Your task to perform on an android device: see sites visited before in the chrome app Image 0: 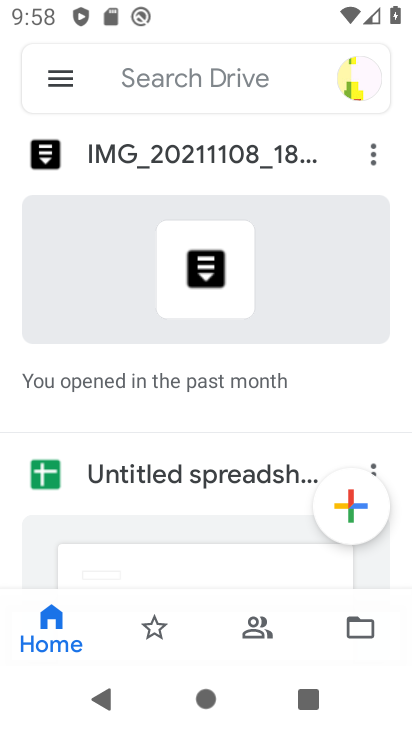
Step 0: press home button
Your task to perform on an android device: see sites visited before in the chrome app Image 1: 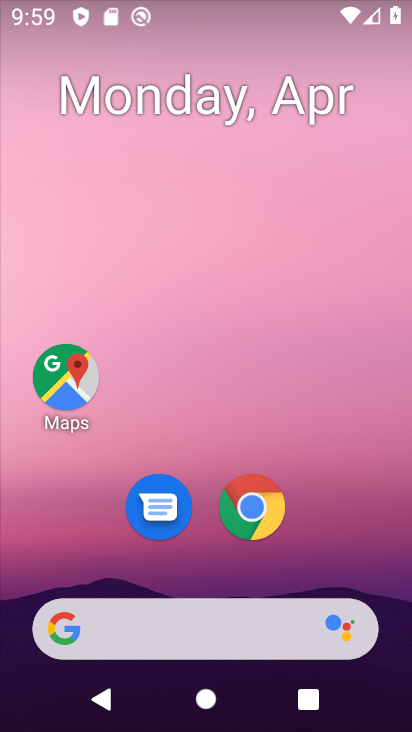
Step 1: click (264, 495)
Your task to perform on an android device: see sites visited before in the chrome app Image 2: 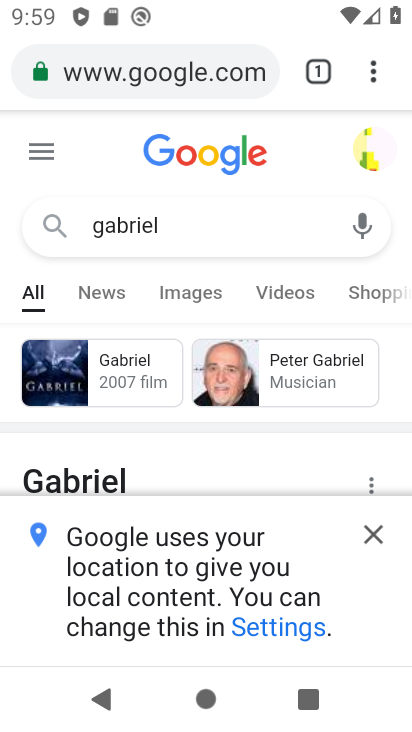
Step 2: click (373, 64)
Your task to perform on an android device: see sites visited before in the chrome app Image 3: 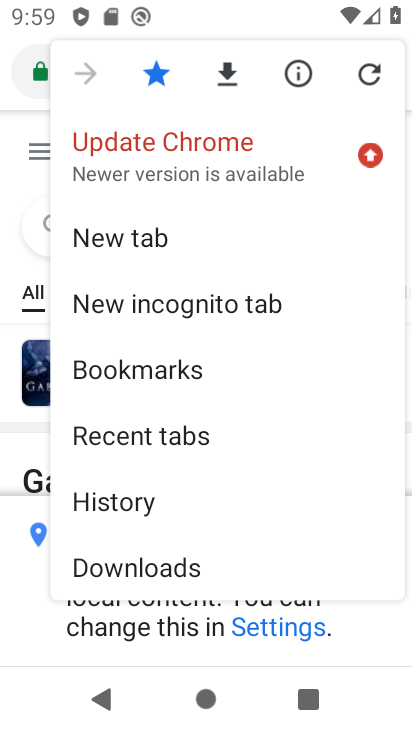
Step 3: click (109, 511)
Your task to perform on an android device: see sites visited before in the chrome app Image 4: 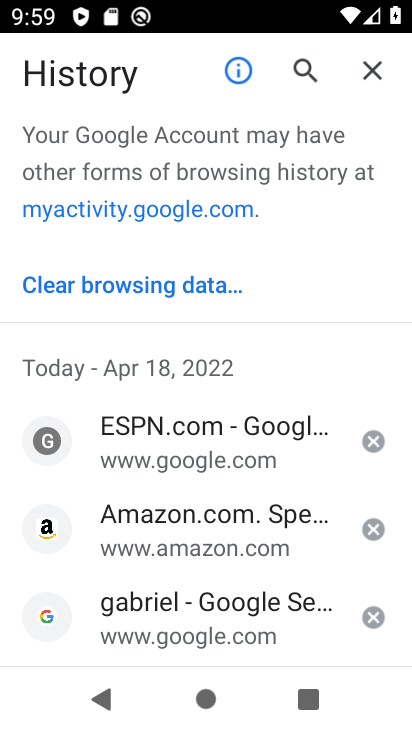
Step 4: task complete